Your task to perform on an android device: Add bose soundsport free to the cart on bestbuy, then select checkout. Image 0: 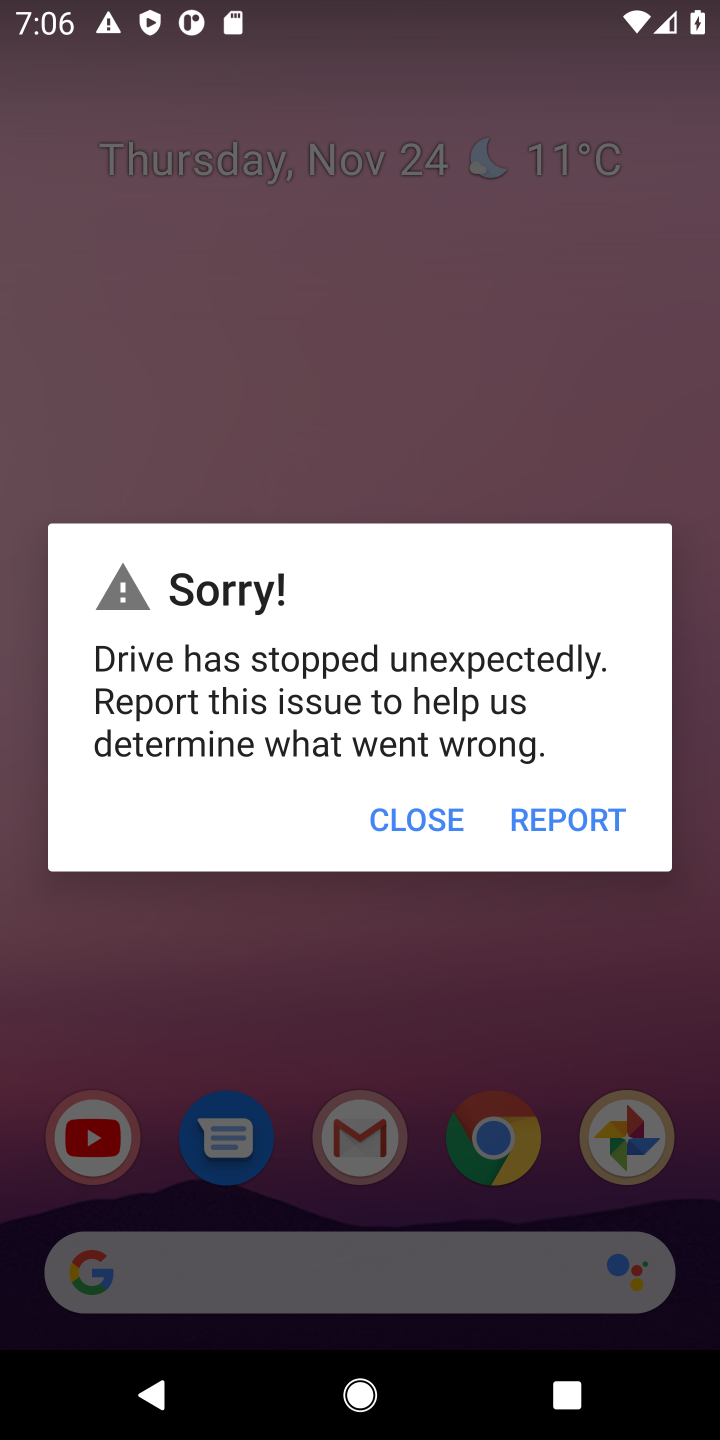
Step 0: press home button
Your task to perform on an android device: Add bose soundsport free to the cart on bestbuy, then select checkout. Image 1: 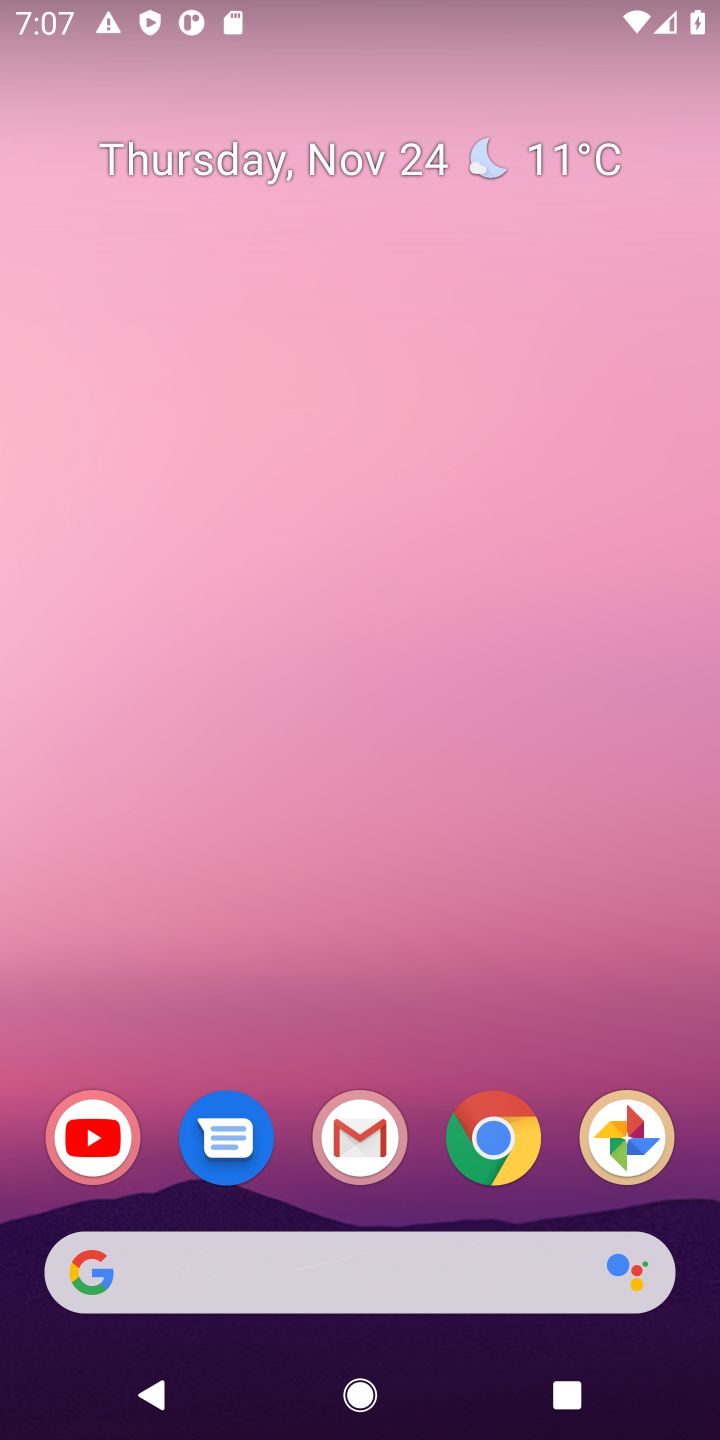
Step 1: click (344, 1263)
Your task to perform on an android device: Add bose soundsport free to the cart on bestbuy, then select checkout. Image 2: 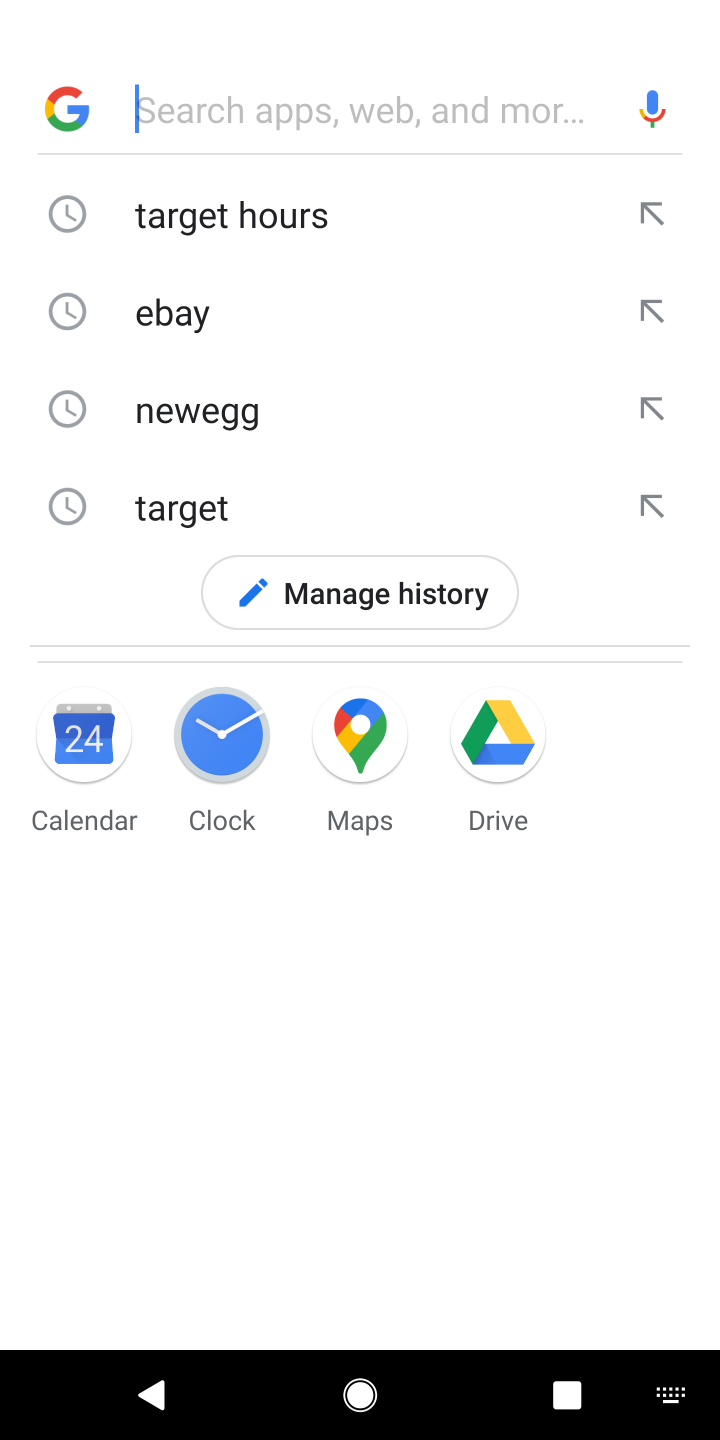
Step 2: type "bestbuy.com"
Your task to perform on an android device: Add bose soundsport free to the cart on bestbuy, then select checkout. Image 3: 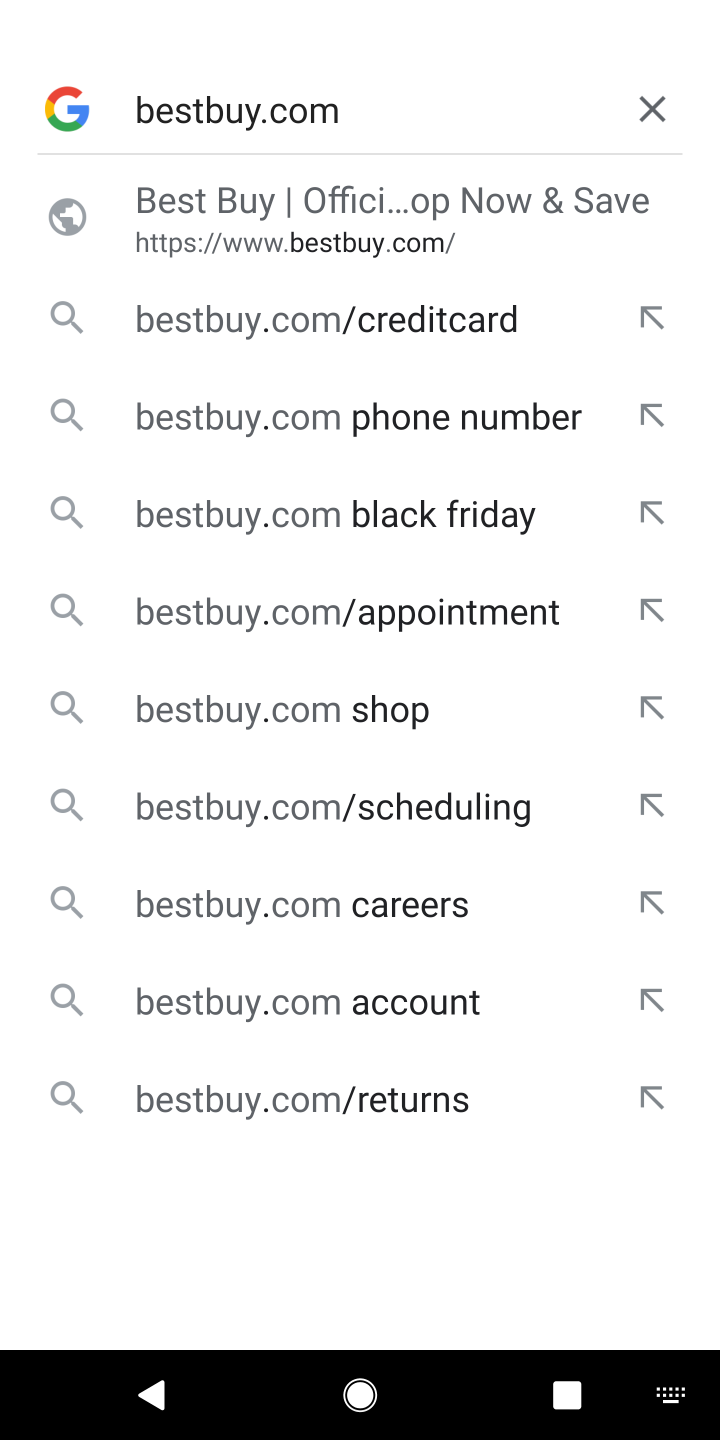
Step 3: click (409, 237)
Your task to perform on an android device: Add bose soundsport free to the cart on bestbuy, then select checkout. Image 4: 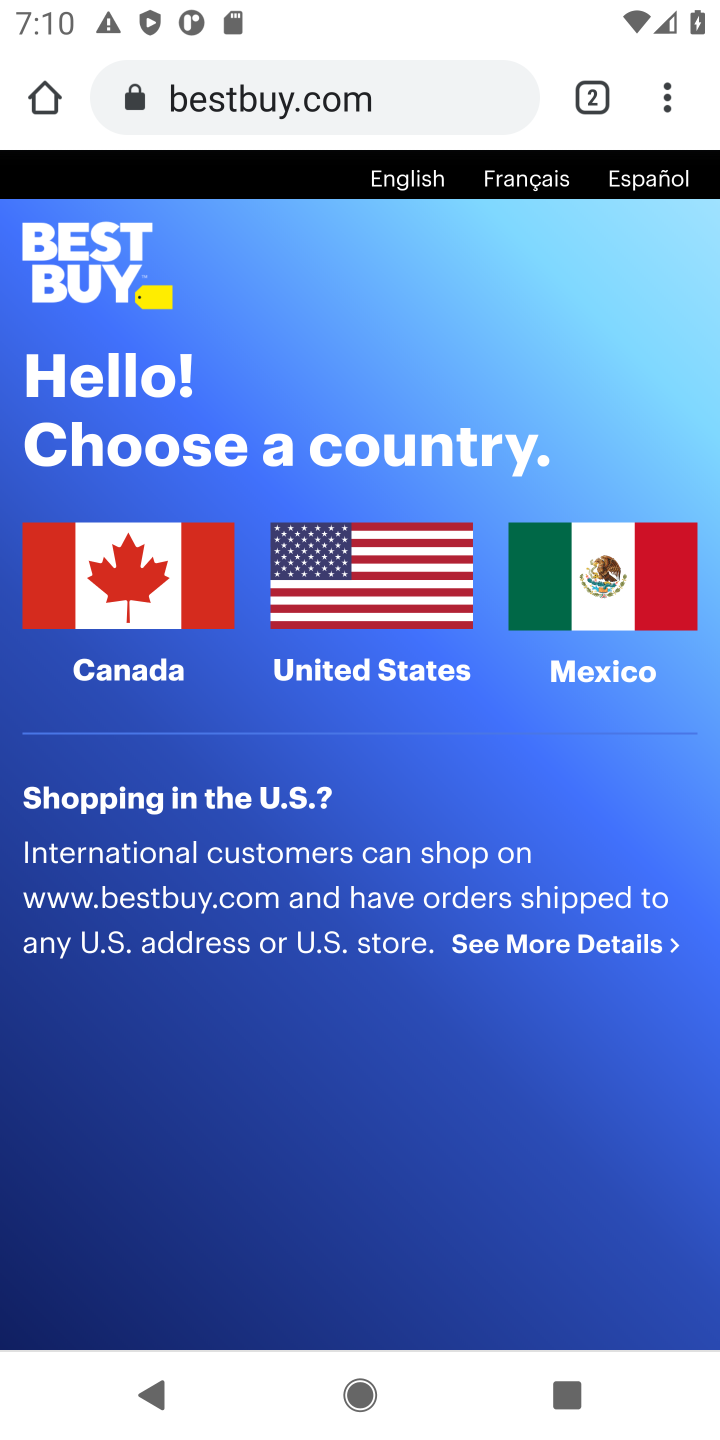
Step 4: click (385, 592)
Your task to perform on an android device: Add bose soundsport free to the cart on bestbuy, then select checkout. Image 5: 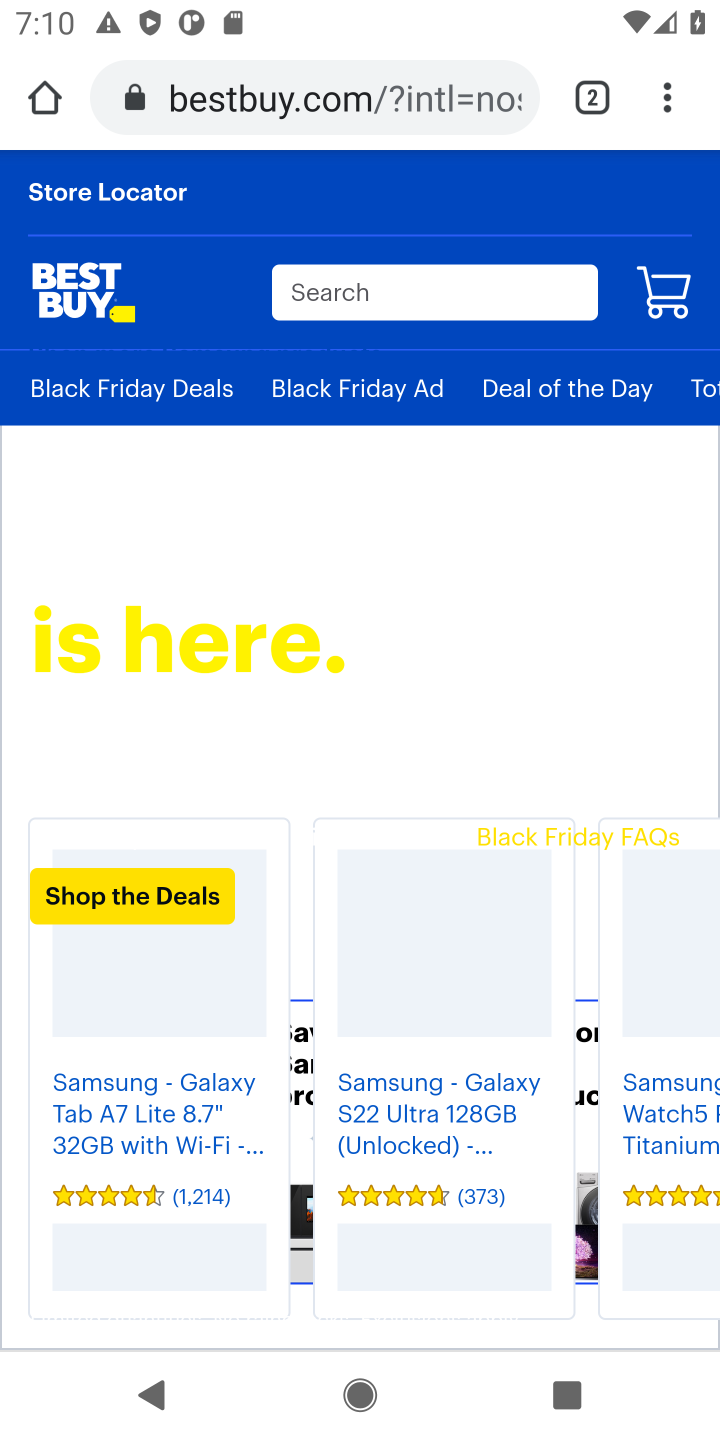
Step 5: click (372, 301)
Your task to perform on an android device: Add bose soundsport free to the cart on bestbuy, then select checkout. Image 6: 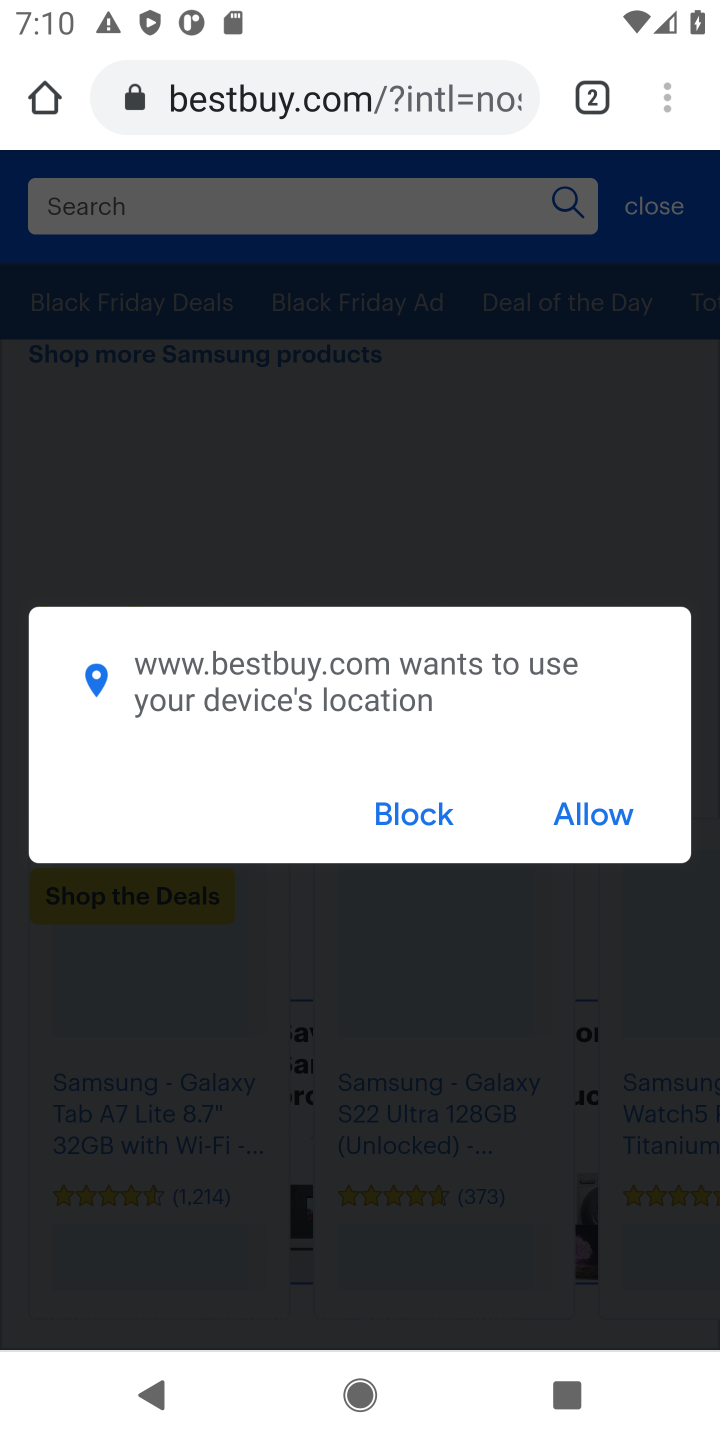
Step 6: click (590, 803)
Your task to perform on an android device: Add bose soundsport free to the cart on bestbuy, then select checkout. Image 7: 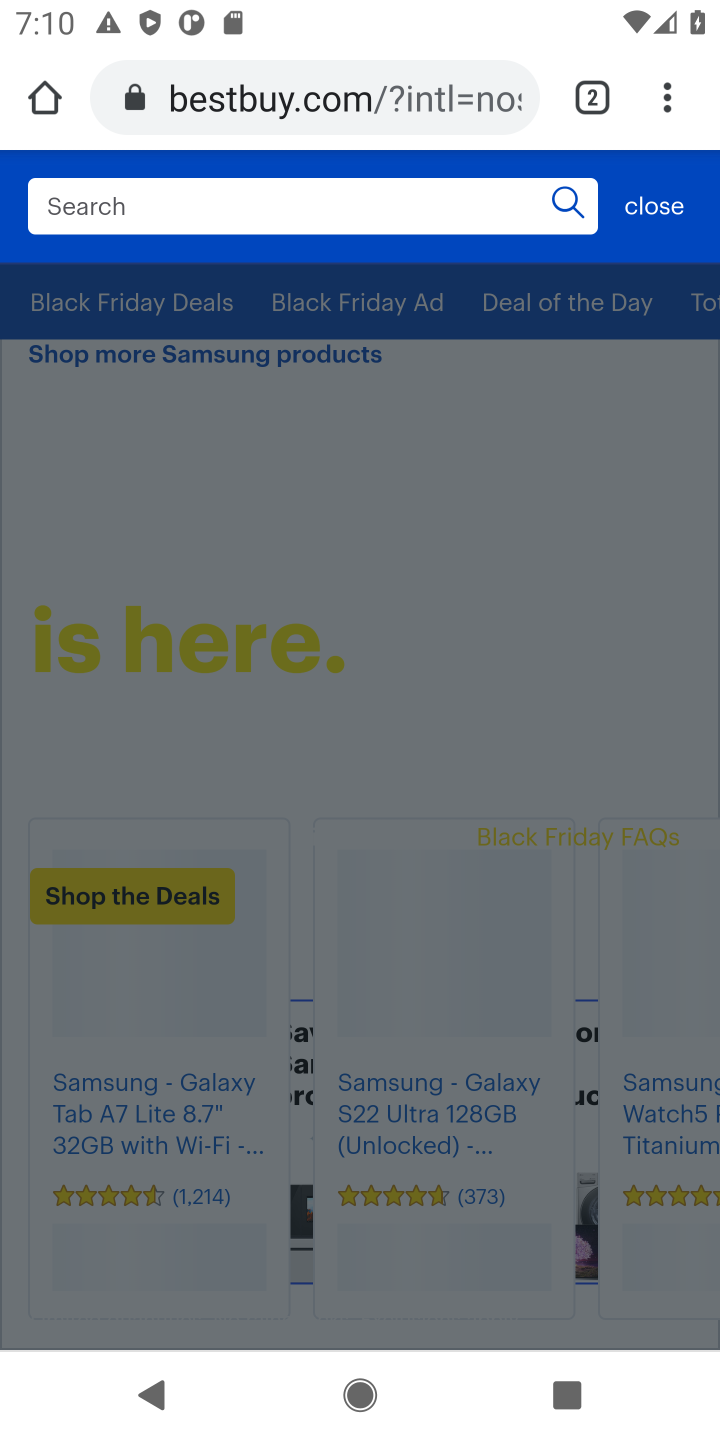
Step 7: click (460, 214)
Your task to perform on an android device: Add bose soundsport free to the cart on bestbuy, then select checkout. Image 8: 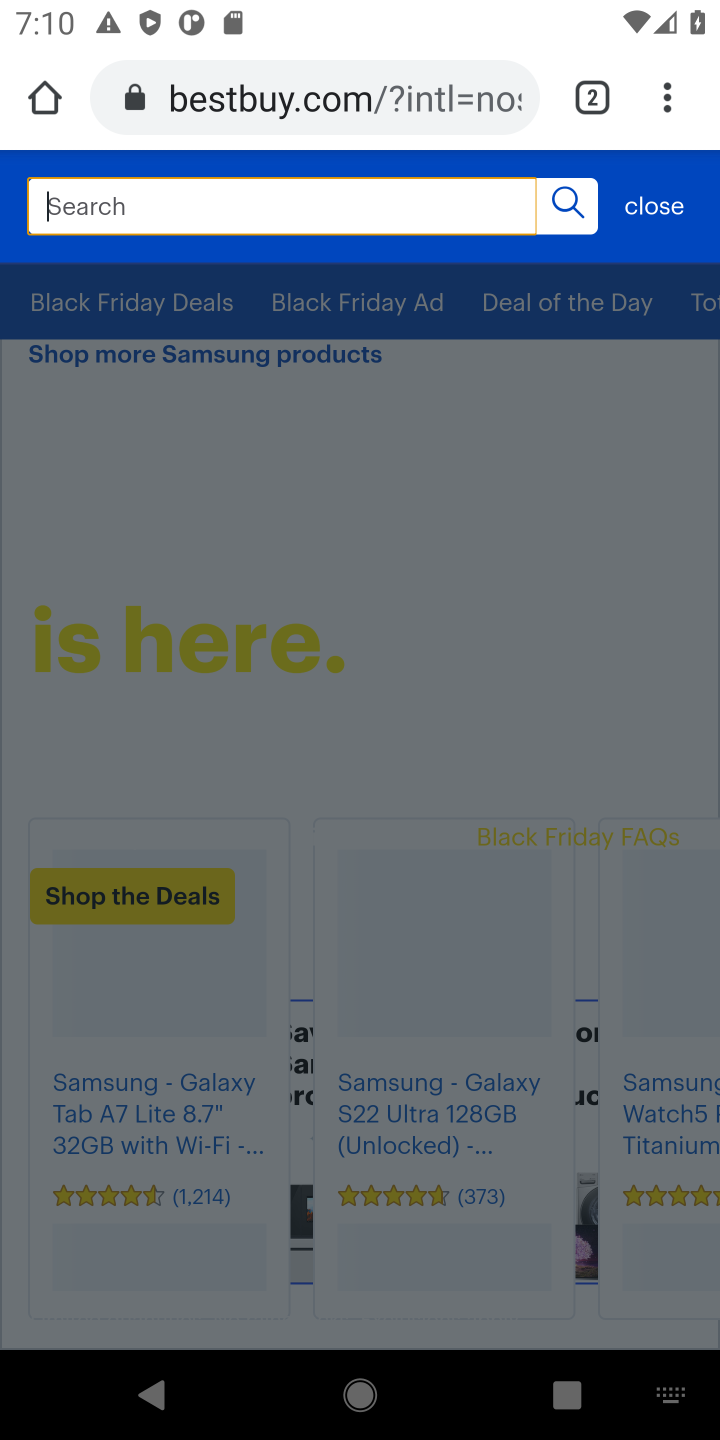
Step 8: type " bose soundsport free"
Your task to perform on an android device: Add bose soundsport free to the cart on bestbuy, then select checkout. Image 9: 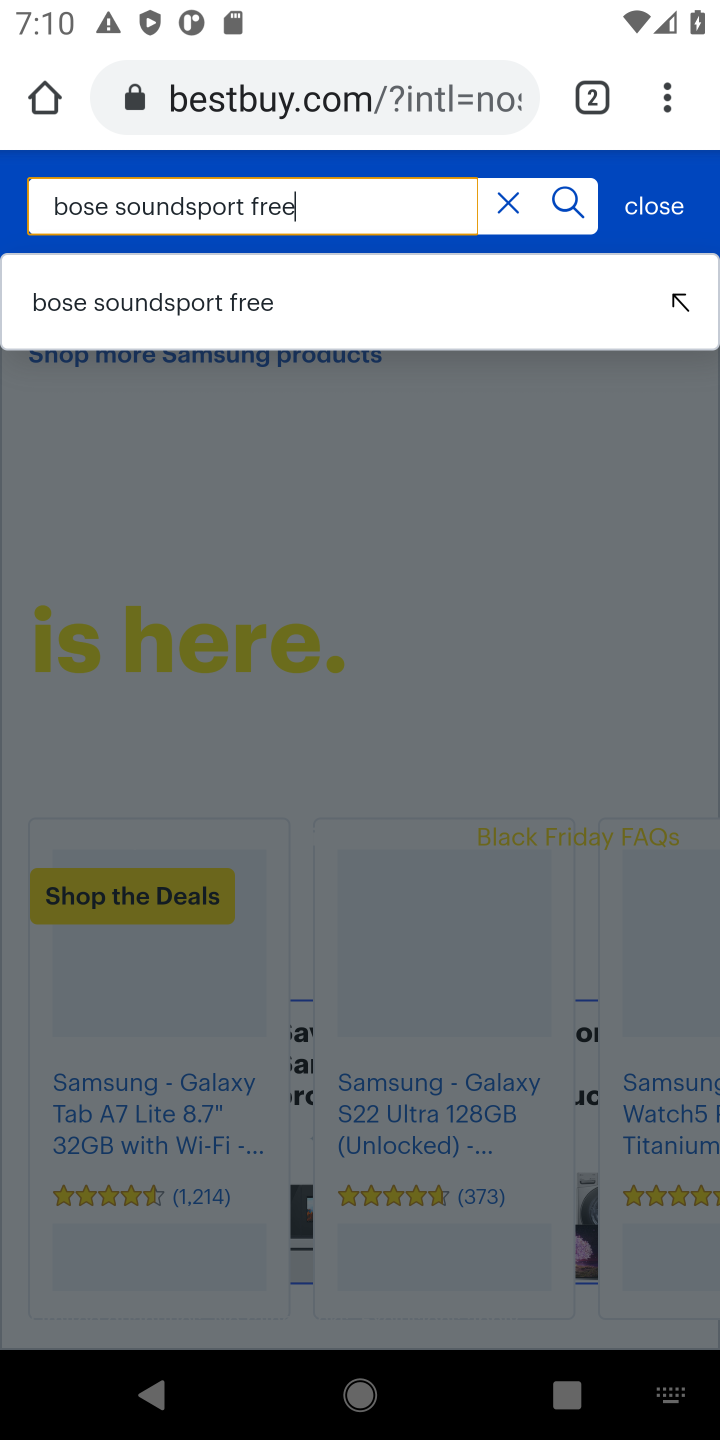
Step 9: click (565, 195)
Your task to perform on an android device: Add bose soundsport free to the cart on bestbuy, then select checkout. Image 10: 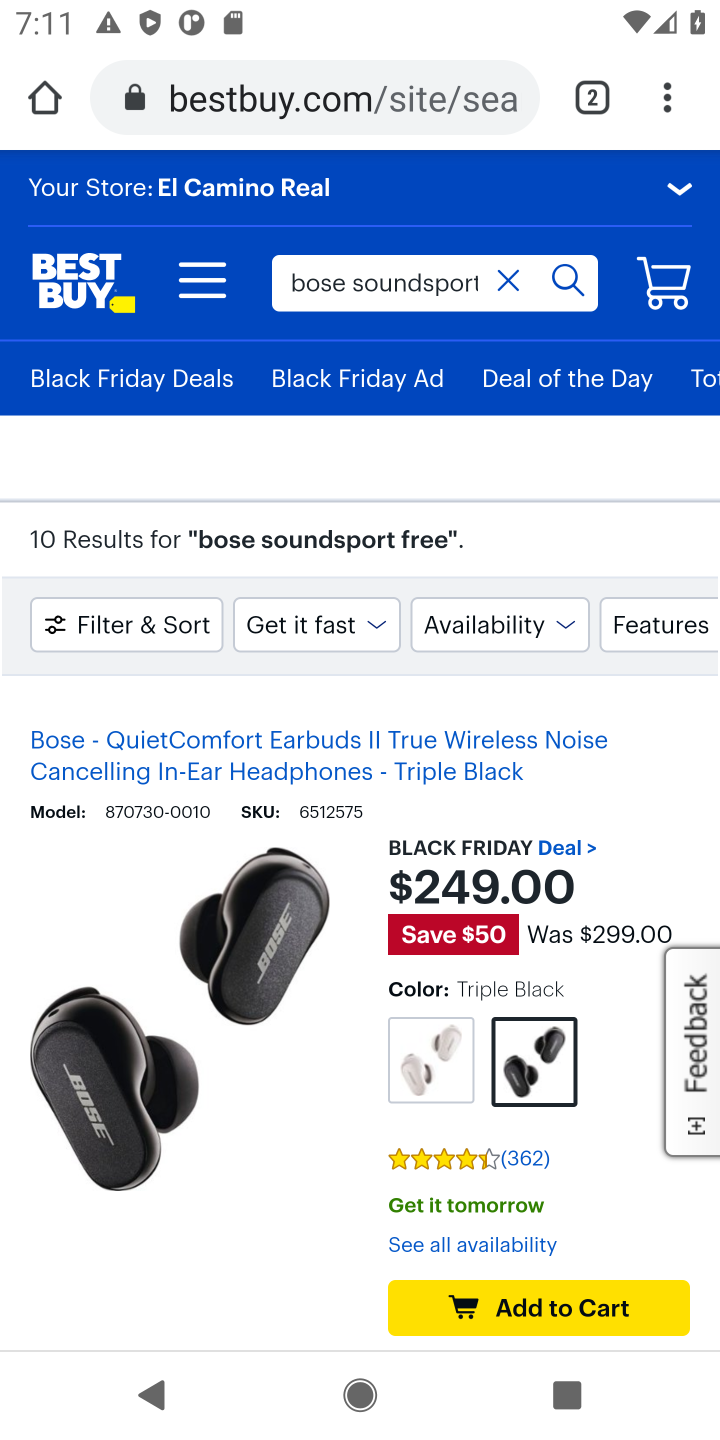
Step 10: click (521, 1318)
Your task to perform on an android device: Add bose soundsport free to the cart on bestbuy, then select checkout. Image 11: 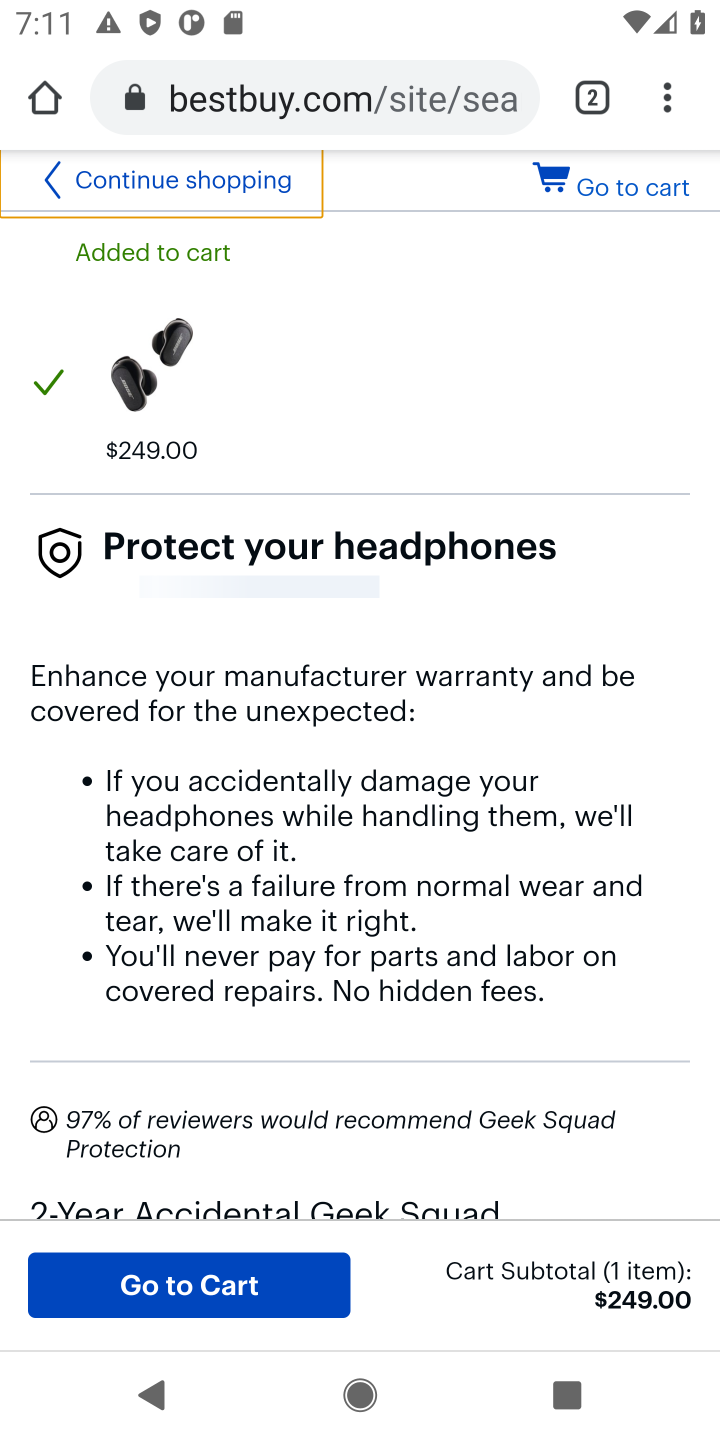
Step 11: click (231, 1270)
Your task to perform on an android device: Add bose soundsport free to the cart on bestbuy, then select checkout. Image 12: 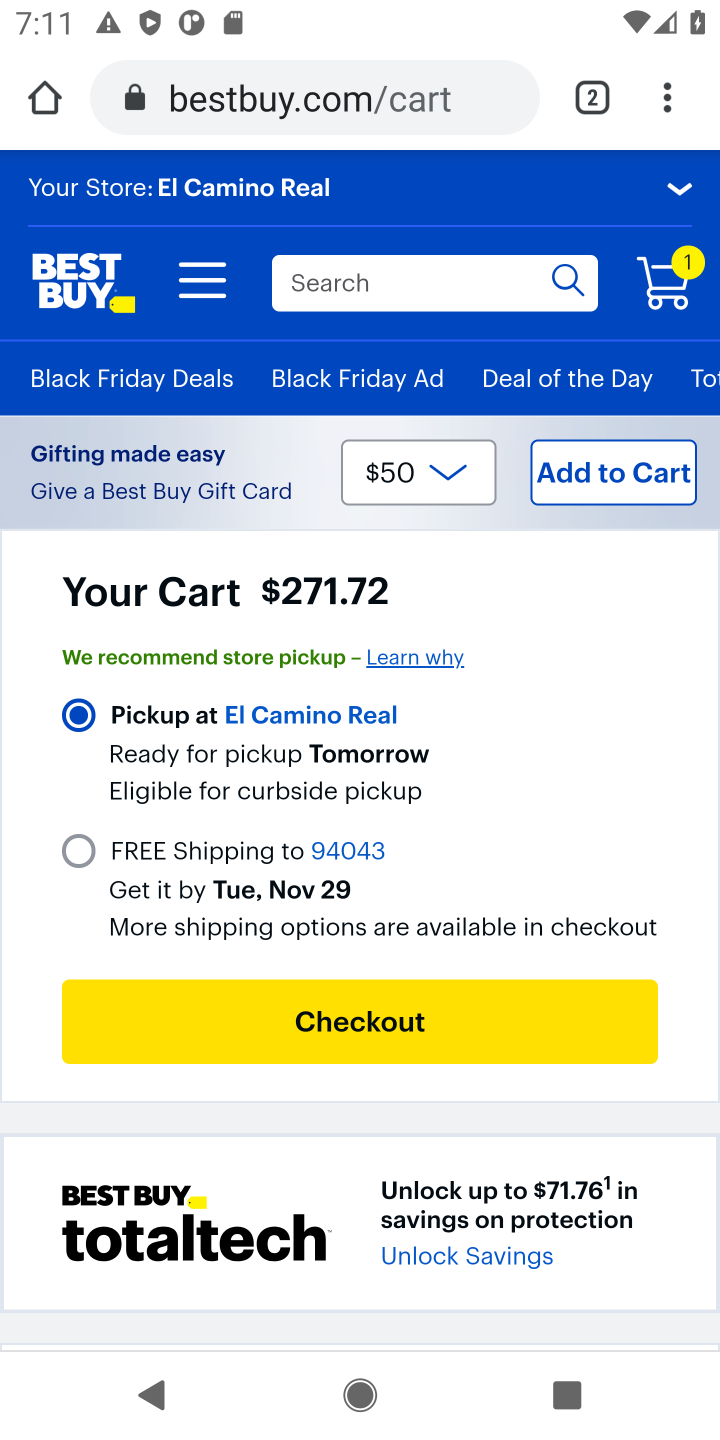
Step 12: click (346, 1022)
Your task to perform on an android device: Add bose soundsport free to the cart on bestbuy, then select checkout. Image 13: 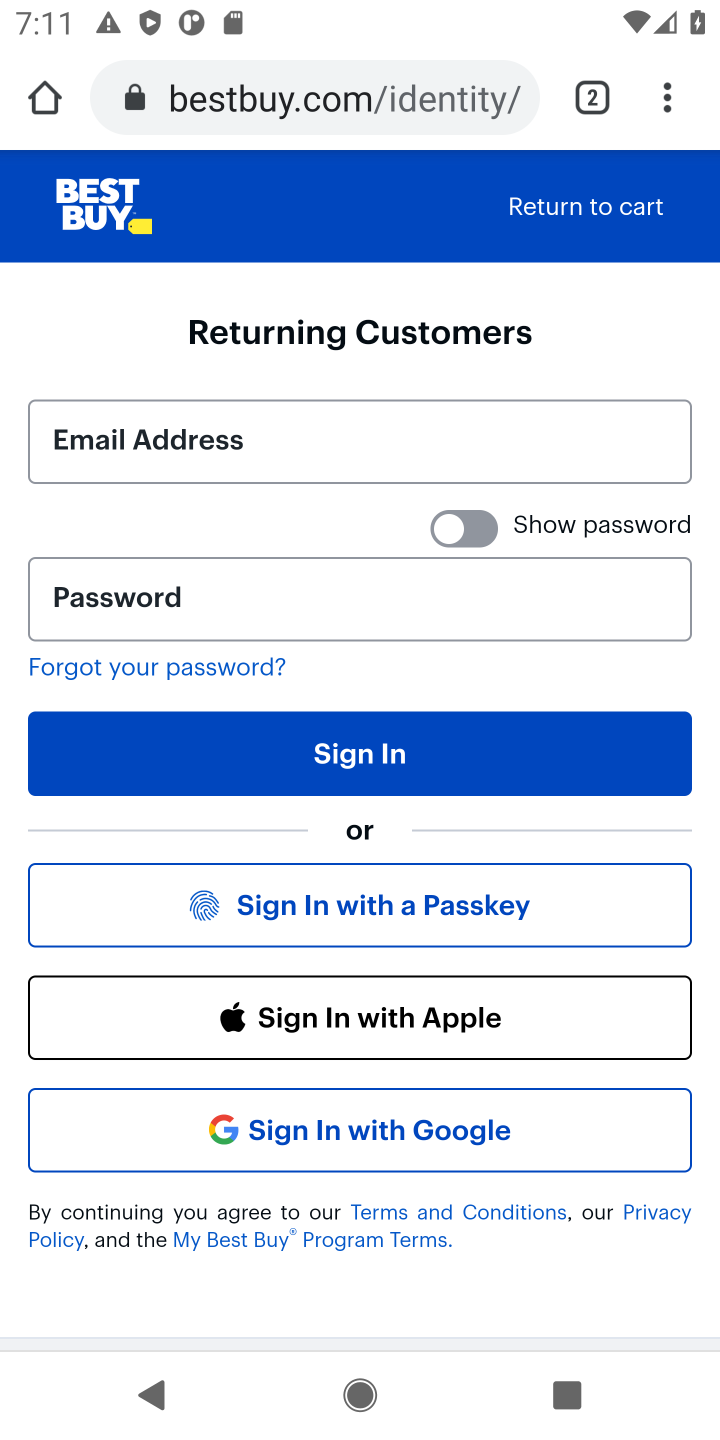
Step 13: task complete